Your task to perform on an android device: allow cookies in the chrome app Image 0: 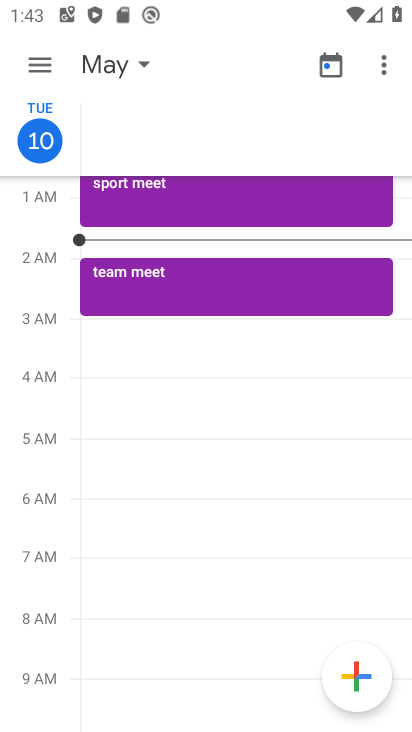
Step 0: press home button
Your task to perform on an android device: allow cookies in the chrome app Image 1: 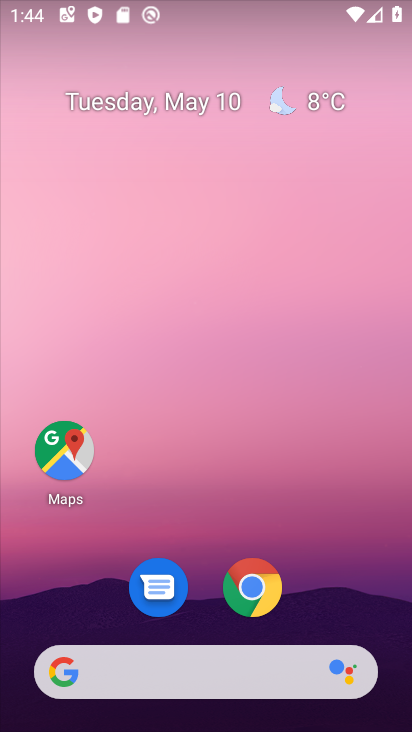
Step 1: click (262, 574)
Your task to perform on an android device: allow cookies in the chrome app Image 2: 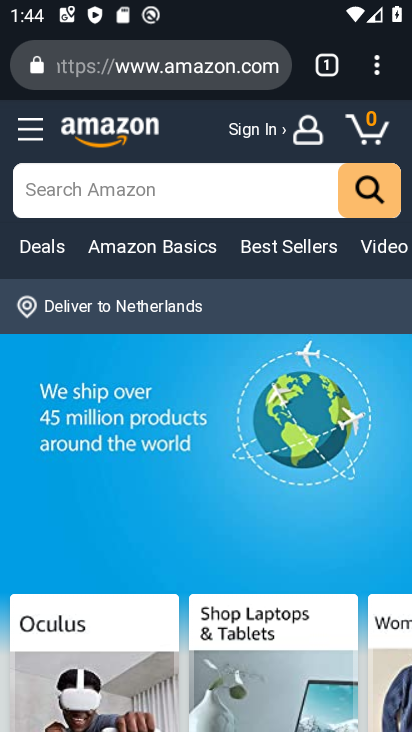
Step 2: click (379, 67)
Your task to perform on an android device: allow cookies in the chrome app Image 3: 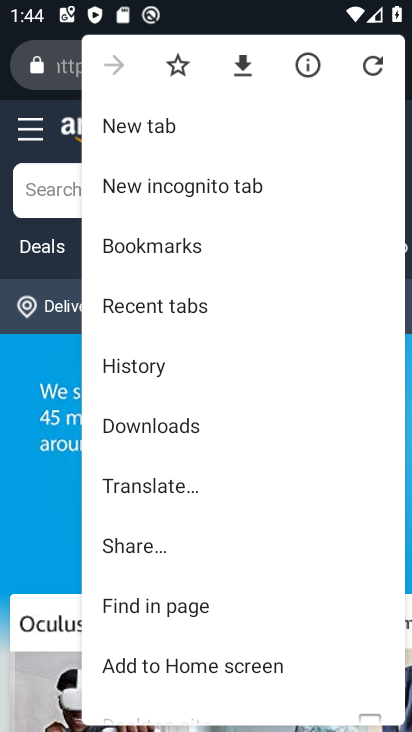
Step 3: drag from (192, 600) to (187, 319)
Your task to perform on an android device: allow cookies in the chrome app Image 4: 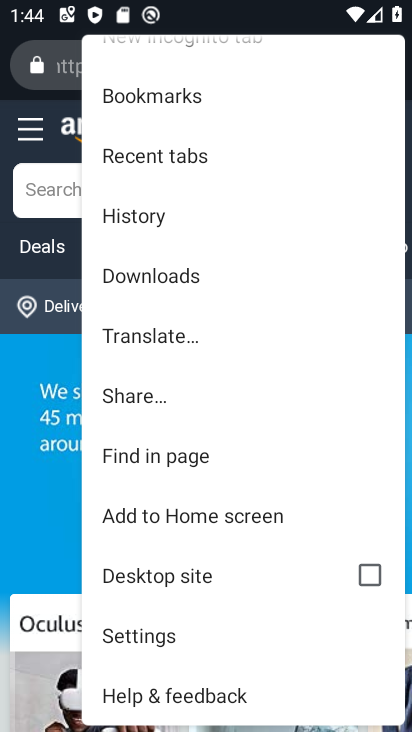
Step 4: click (168, 631)
Your task to perform on an android device: allow cookies in the chrome app Image 5: 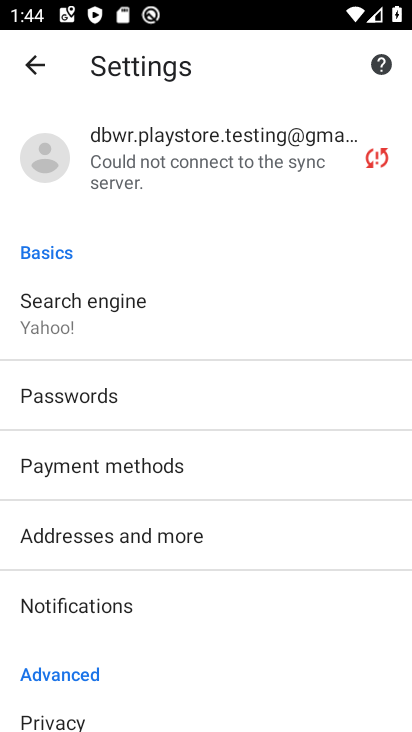
Step 5: drag from (159, 625) to (155, 326)
Your task to perform on an android device: allow cookies in the chrome app Image 6: 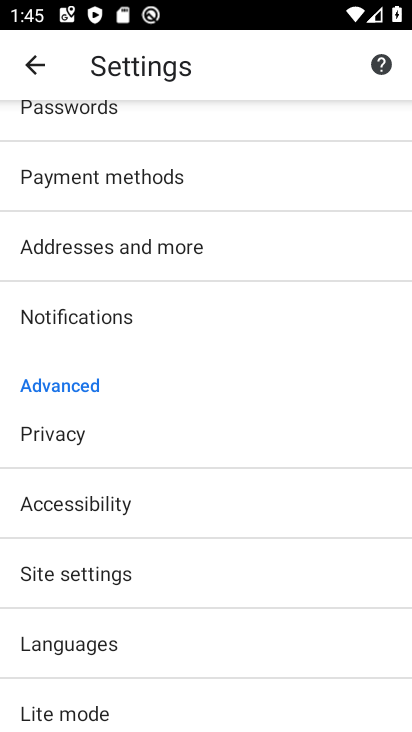
Step 6: drag from (174, 641) to (177, 289)
Your task to perform on an android device: allow cookies in the chrome app Image 7: 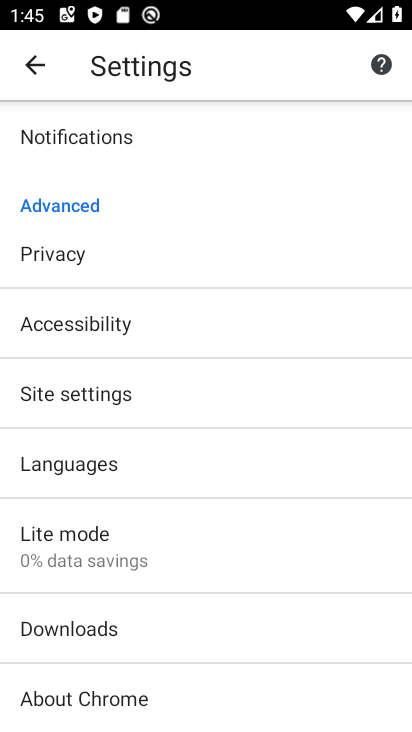
Step 7: click (131, 400)
Your task to perform on an android device: allow cookies in the chrome app Image 8: 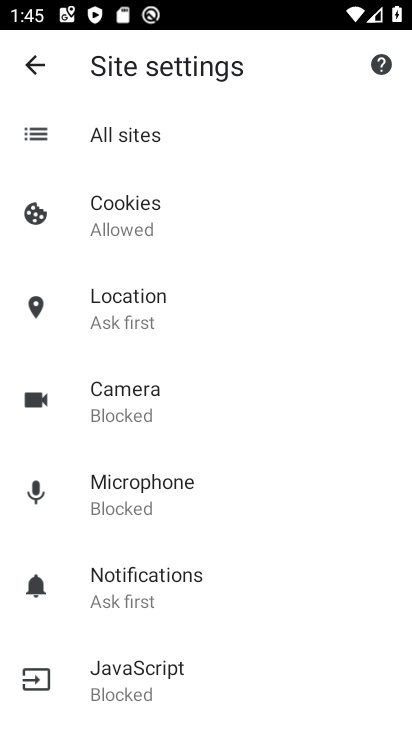
Step 8: click (161, 231)
Your task to perform on an android device: allow cookies in the chrome app Image 9: 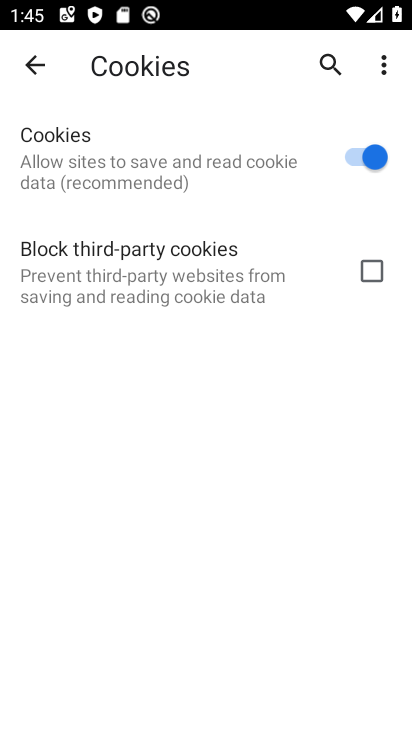
Step 9: task complete